Your task to perform on an android device: clear all cookies in the chrome app Image 0: 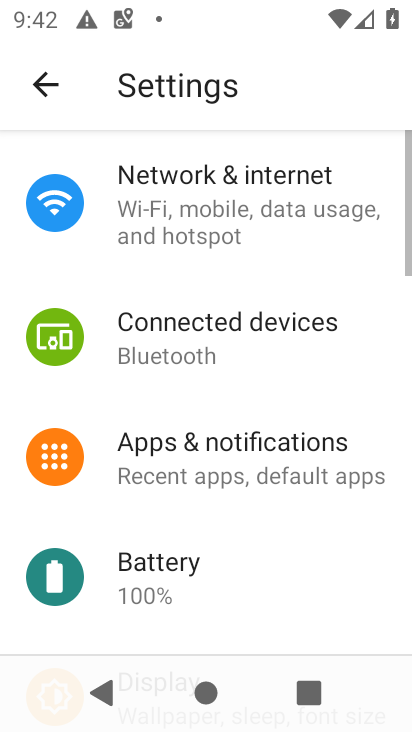
Step 0: press home button
Your task to perform on an android device: clear all cookies in the chrome app Image 1: 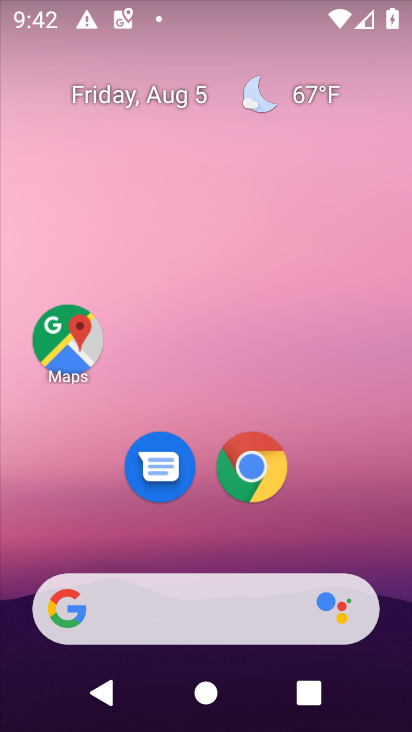
Step 1: click (253, 467)
Your task to perform on an android device: clear all cookies in the chrome app Image 2: 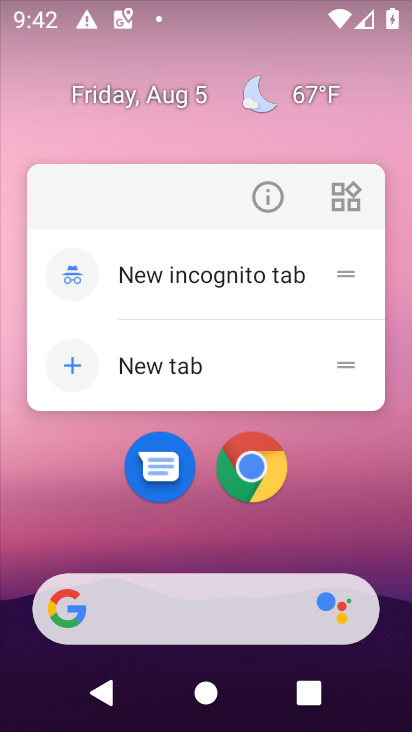
Step 2: click (256, 464)
Your task to perform on an android device: clear all cookies in the chrome app Image 3: 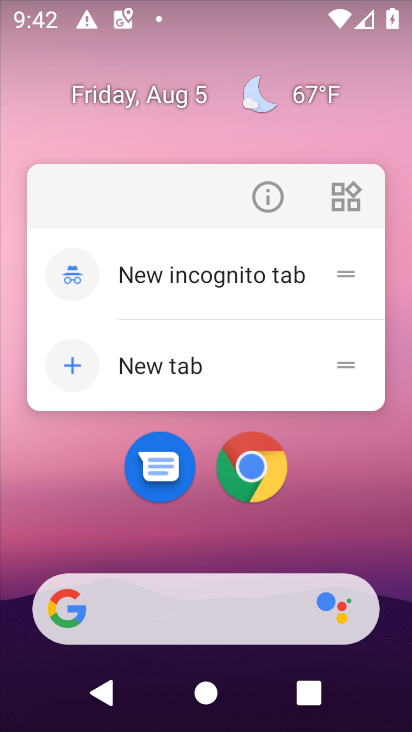
Step 3: click (256, 464)
Your task to perform on an android device: clear all cookies in the chrome app Image 4: 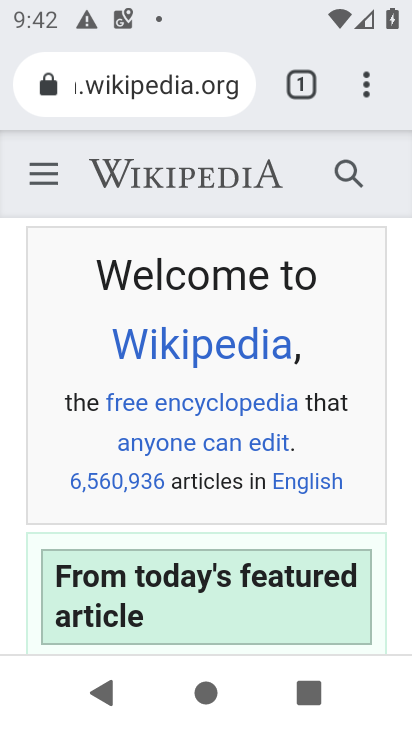
Step 4: click (364, 91)
Your task to perform on an android device: clear all cookies in the chrome app Image 5: 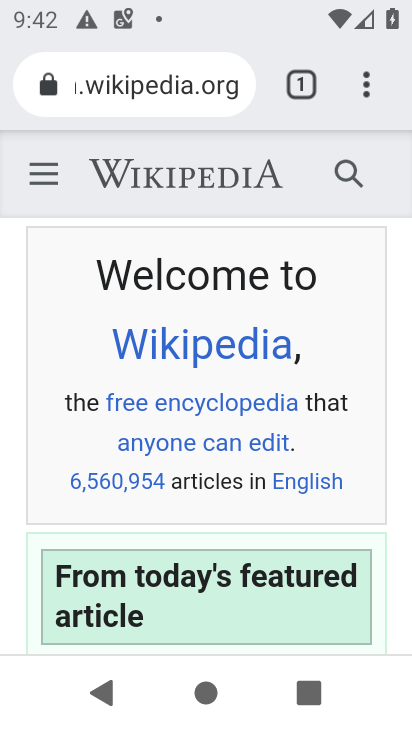
Step 5: click (365, 81)
Your task to perform on an android device: clear all cookies in the chrome app Image 6: 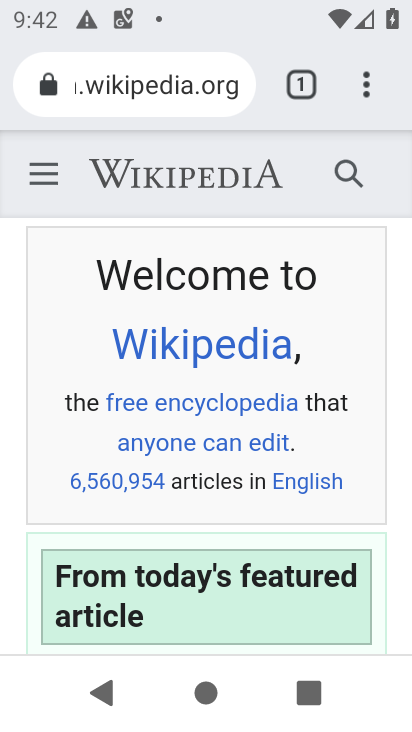
Step 6: click (365, 81)
Your task to perform on an android device: clear all cookies in the chrome app Image 7: 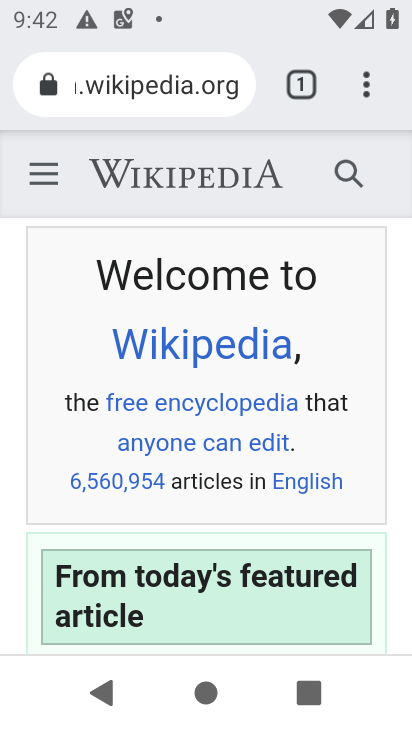
Step 7: click (364, 86)
Your task to perform on an android device: clear all cookies in the chrome app Image 8: 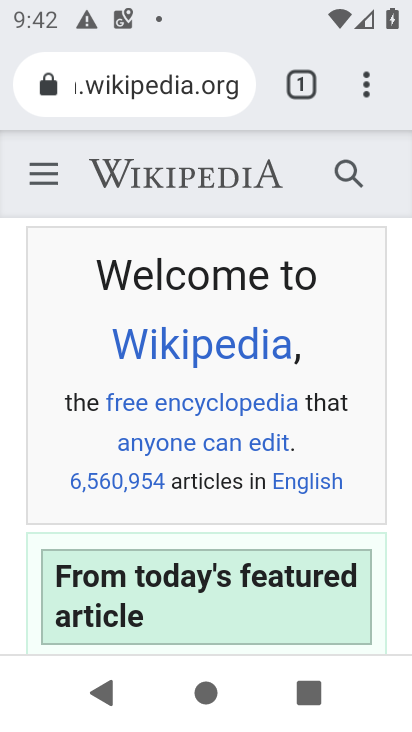
Step 8: click (364, 86)
Your task to perform on an android device: clear all cookies in the chrome app Image 9: 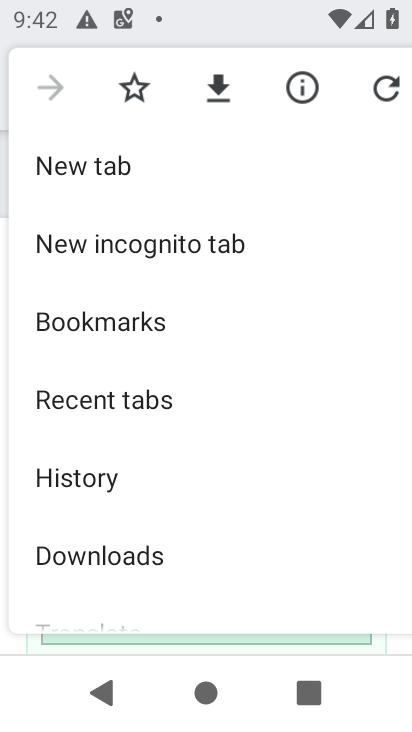
Step 9: click (80, 492)
Your task to perform on an android device: clear all cookies in the chrome app Image 10: 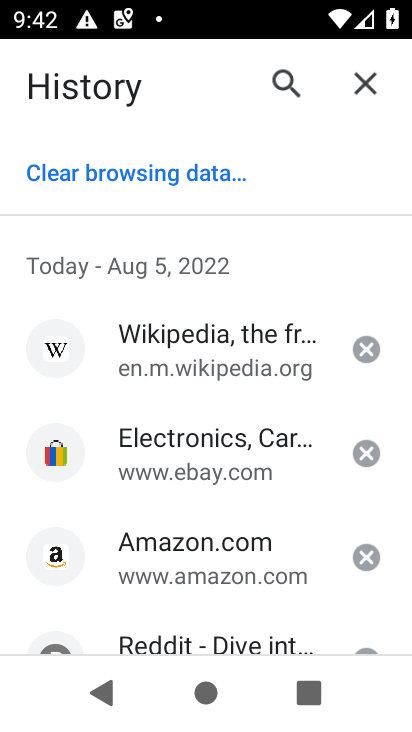
Step 10: click (123, 176)
Your task to perform on an android device: clear all cookies in the chrome app Image 11: 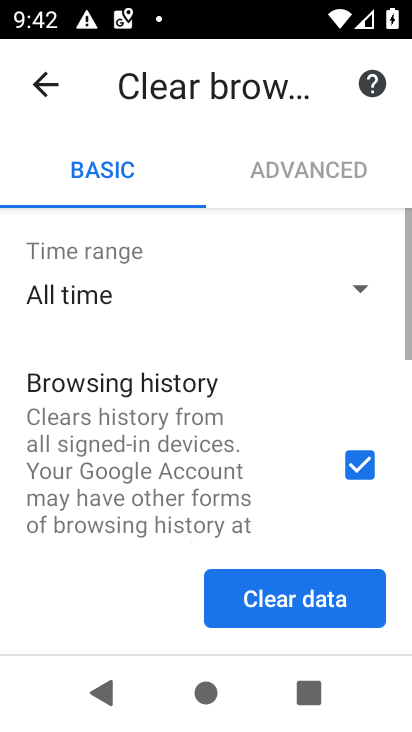
Step 11: click (298, 596)
Your task to perform on an android device: clear all cookies in the chrome app Image 12: 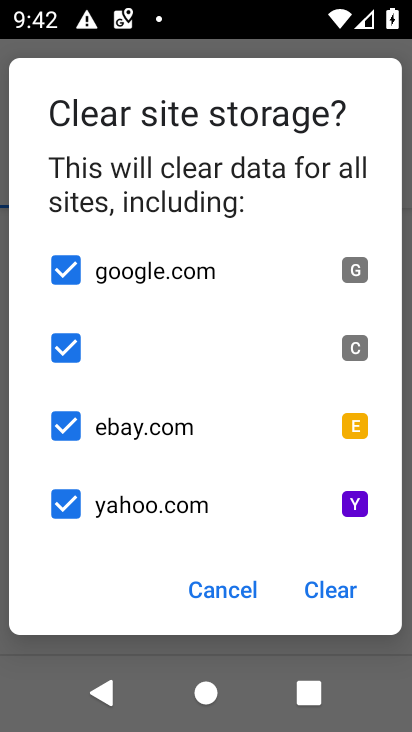
Step 12: click (315, 595)
Your task to perform on an android device: clear all cookies in the chrome app Image 13: 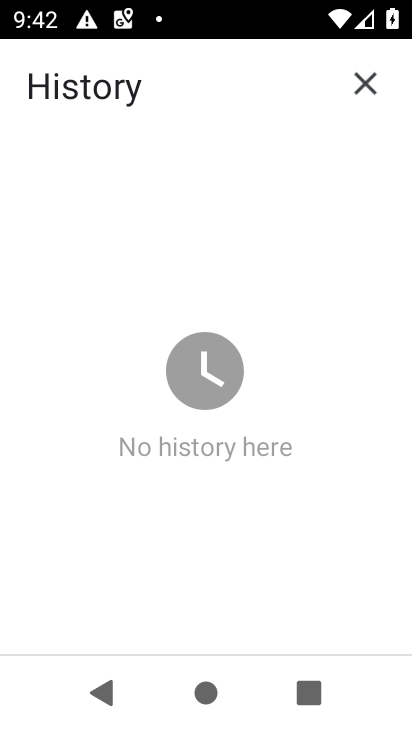
Step 13: task complete